Your task to perform on an android device: toggle pop-ups in chrome Image 0: 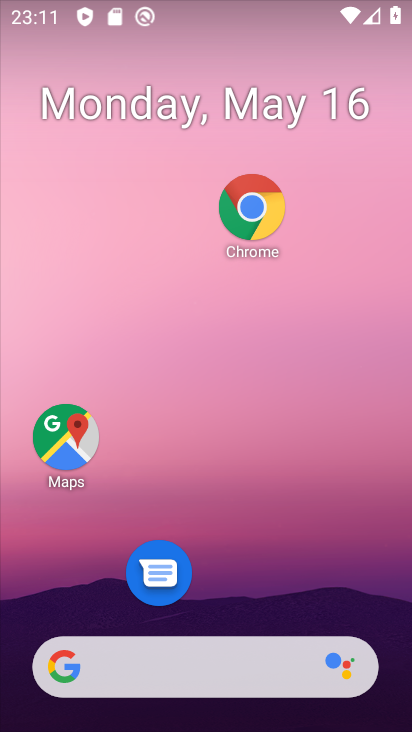
Step 0: drag from (299, 614) to (381, 89)
Your task to perform on an android device: toggle pop-ups in chrome Image 1: 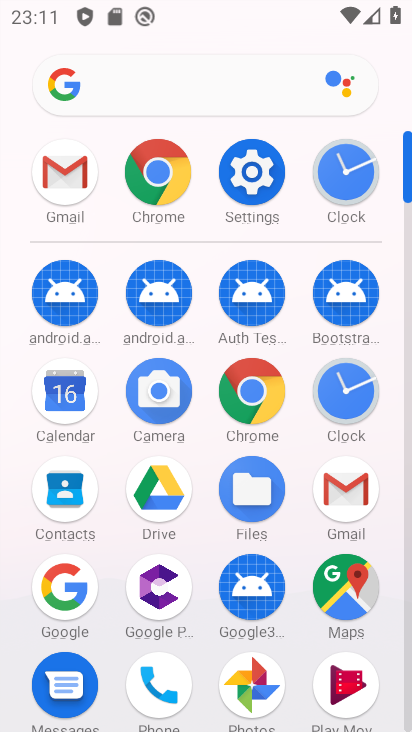
Step 1: click (256, 396)
Your task to perform on an android device: toggle pop-ups in chrome Image 2: 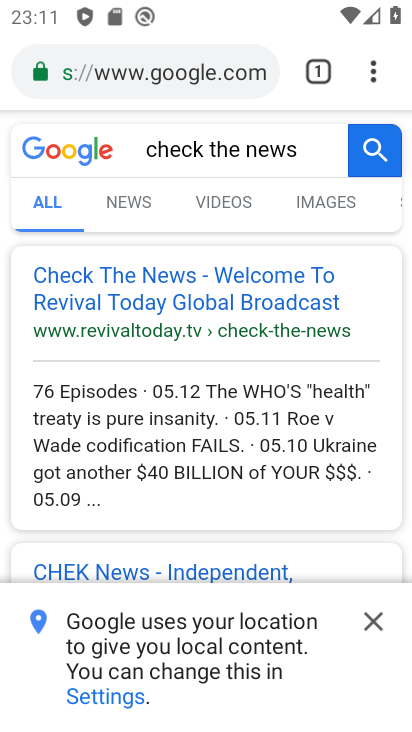
Step 2: click (374, 75)
Your task to perform on an android device: toggle pop-ups in chrome Image 3: 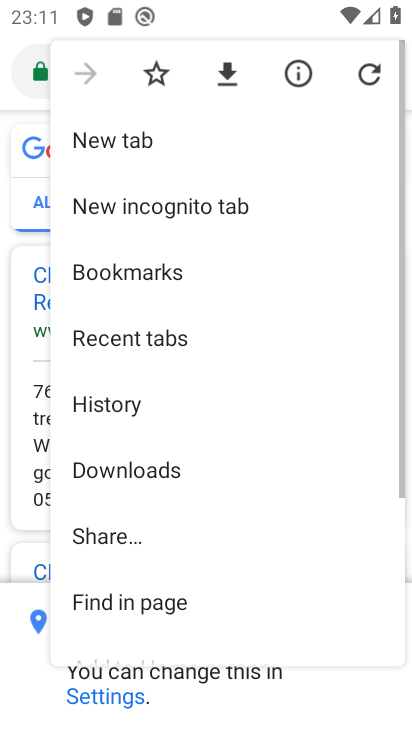
Step 3: drag from (173, 591) to (214, 205)
Your task to perform on an android device: toggle pop-ups in chrome Image 4: 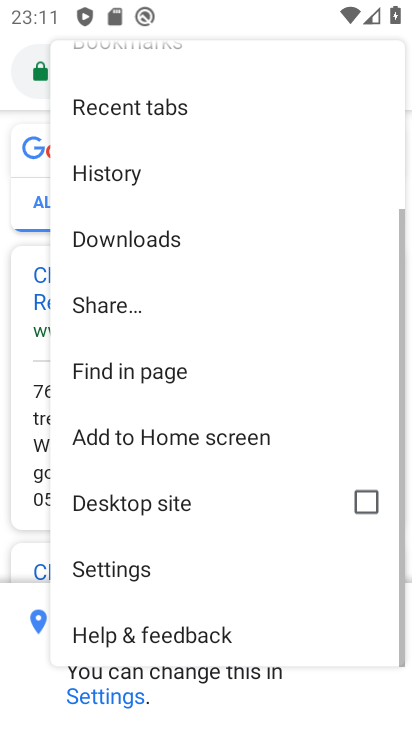
Step 4: click (163, 568)
Your task to perform on an android device: toggle pop-ups in chrome Image 5: 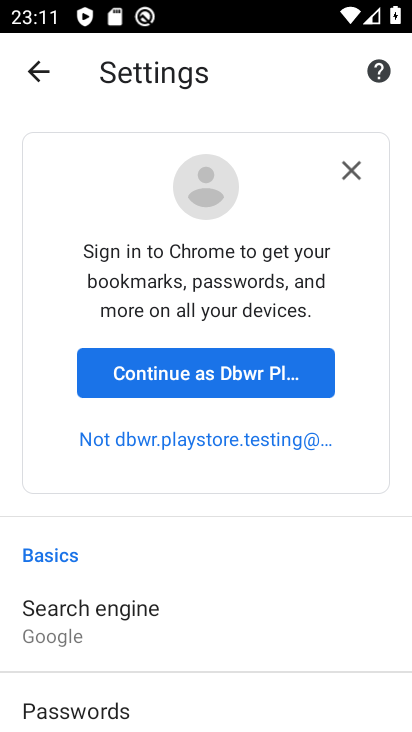
Step 5: drag from (148, 651) to (132, 67)
Your task to perform on an android device: toggle pop-ups in chrome Image 6: 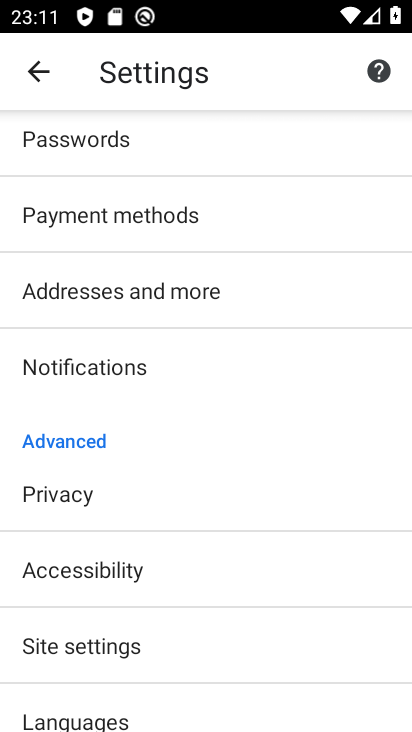
Step 6: click (151, 652)
Your task to perform on an android device: toggle pop-ups in chrome Image 7: 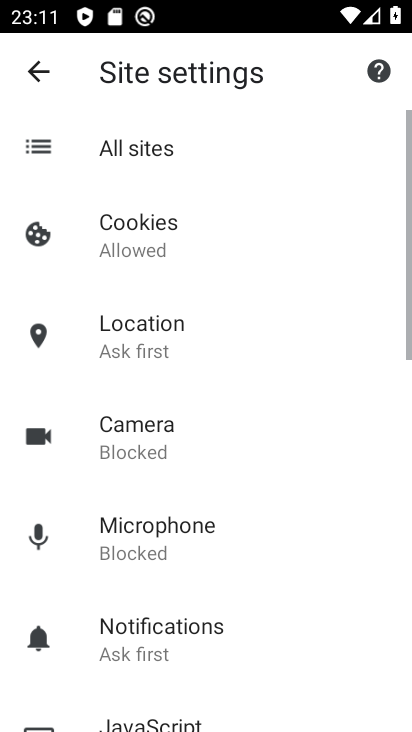
Step 7: drag from (151, 652) to (244, 129)
Your task to perform on an android device: toggle pop-ups in chrome Image 8: 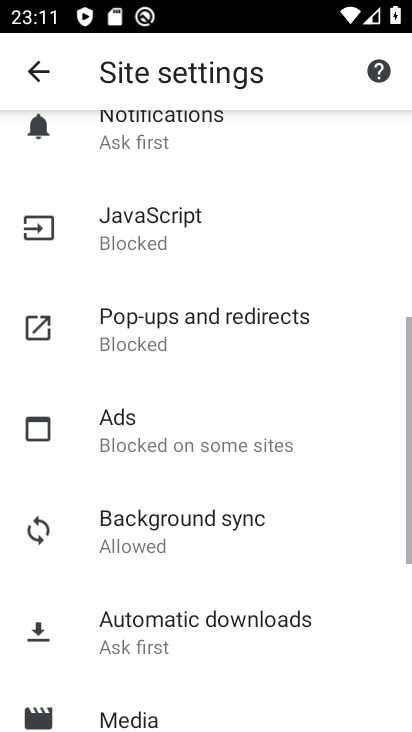
Step 8: click (223, 311)
Your task to perform on an android device: toggle pop-ups in chrome Image 9: 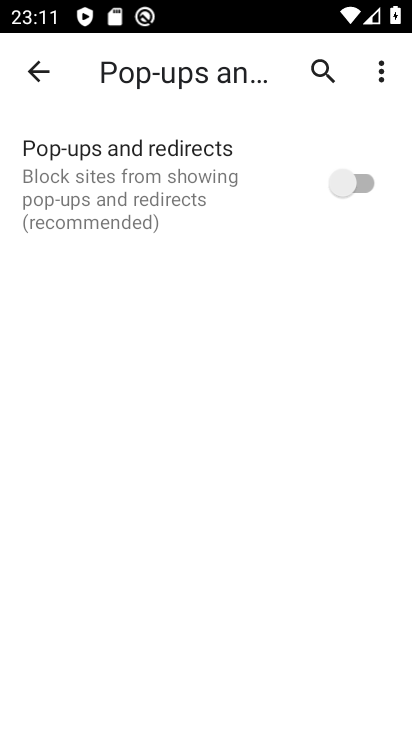
Step 9: click (360, 184)
Your task to perform on an android device: toggle pop-ups in chrome Image 10: 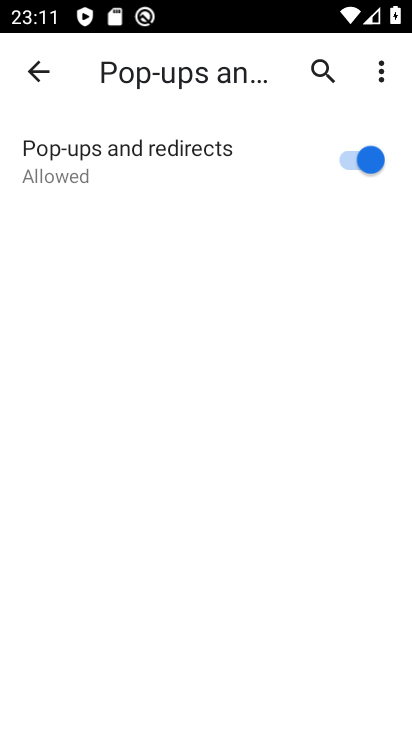
Step 10: task complete